Your task to perform on an android device: turn off improve location accuracy Image 0: 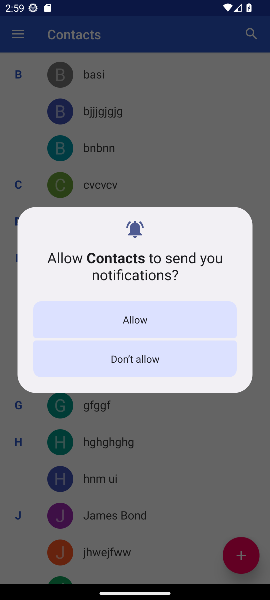
Step 0: press home button
Your task to perform on an android device: turn off improve location accuracy Image 1: 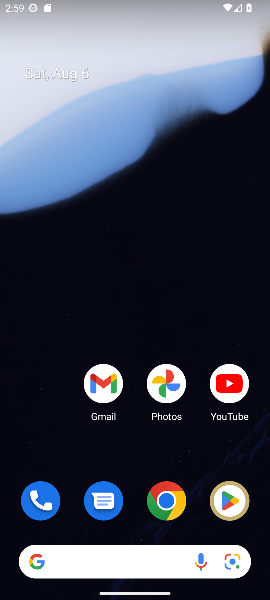
Step 1: drag from (198, 472) to (206, 52)
Your task to perform on an android device: turn off improve location accuracy Image 2: 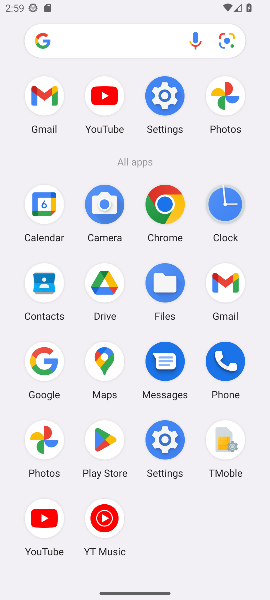
Step 2: click (161, 457)
Your task to perform on an android device: turn off improve location accuracy Image 3: 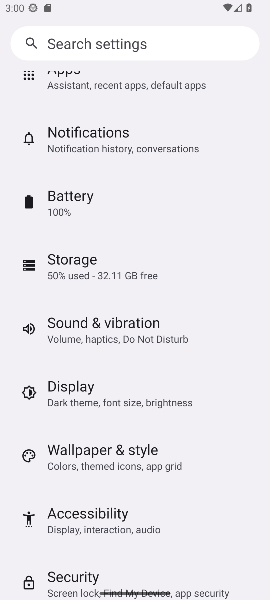
Step 3: drag from (222, 477) to (205, 245)
Your task to perform on an android device: turn off improve location accuracy Image 4: 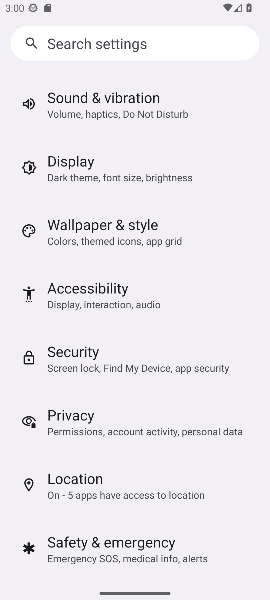
Step 4: click (95, 480)
Your task to perform on an android device: turn off improve location accuracy Image 5: 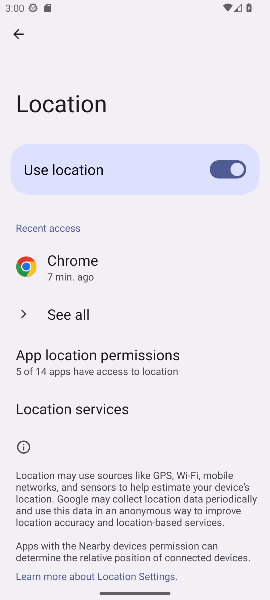
Step 5: drag from (230, 508) to (230, 332)
Your task to perform on an android device: turn off improve location accuracy Image 6: 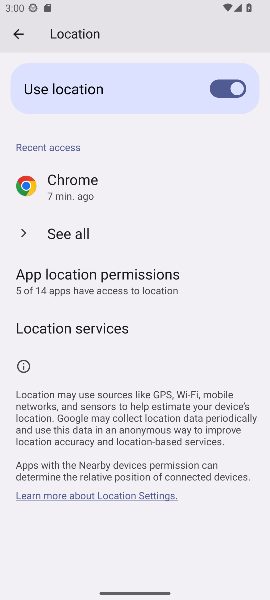
Step 6: click (152, 498)
Your task to perform on an android device: turn off improve location accuracy Image 7: 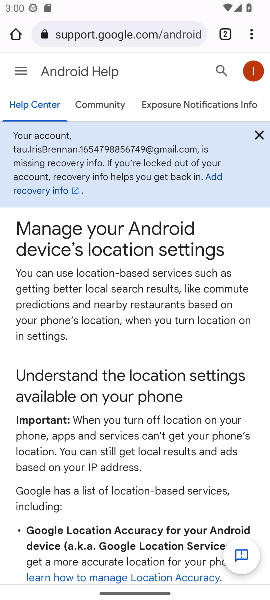
Step 7: press back button
Your task to perform on an android device: turn off improve location accuracy Image 8: 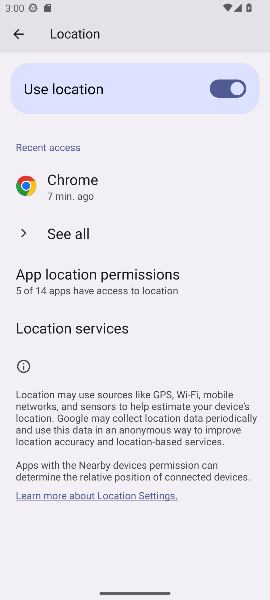
Step 8: click (47, 332)
Your task to perform on an android device: turn off improve location accuracy Image 9: 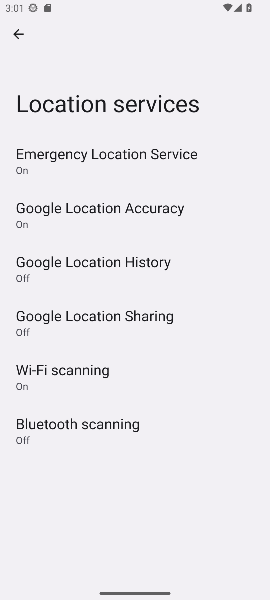
Step 9: click (178, 192)
Your task to perform on an android device: turn off improve location accuracy Image 10: 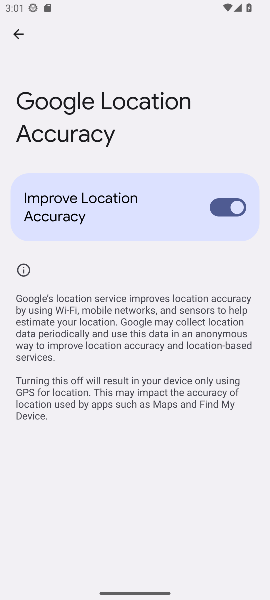
Step 10: click (232, 207)
Your task to perform on an android device: turn off improve location accuracy Image 11: 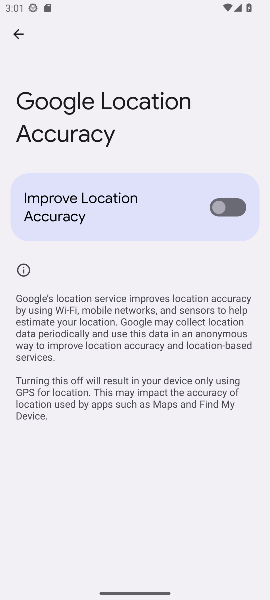
Step 11: task complete